Your task to perform on an android device: turn on sleep mode Image 0: 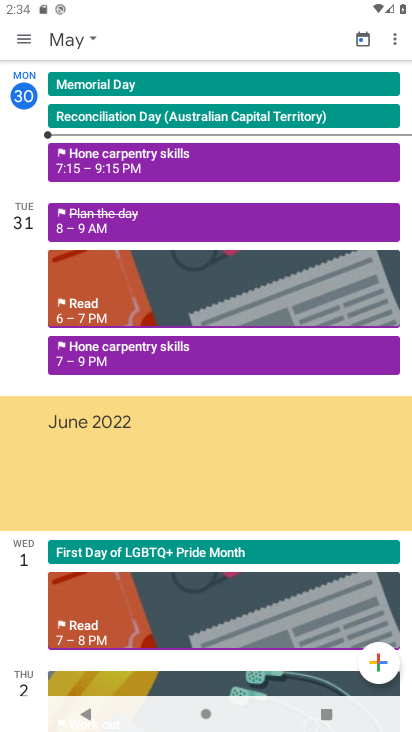
Step 0: press home button
Your task to perform on an android device: turn on sleep mode Image 1: 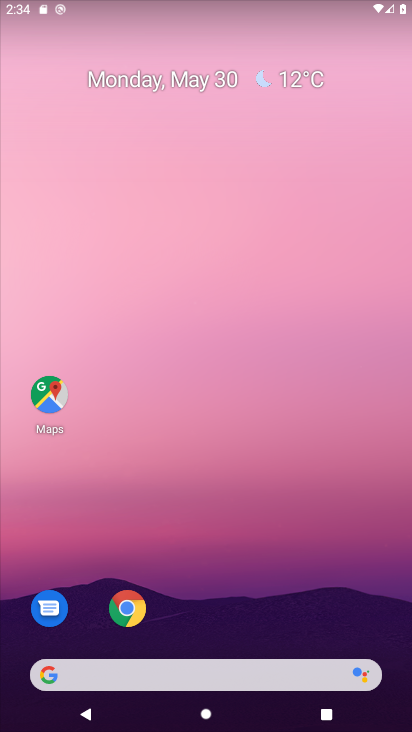
Step 1: drag from (260, 491) to (169, 0)
Your task to perform on an android device: turn on sleep mode Image 2: 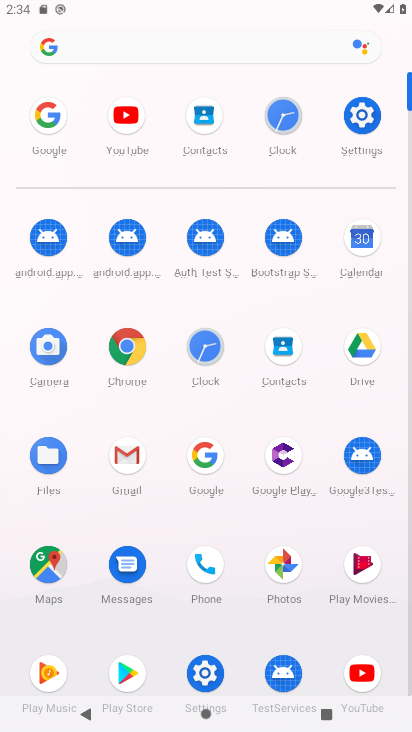
Step 2: click (363, 118)
Your task to perform on an android device: turn on sleep mode Image 3: 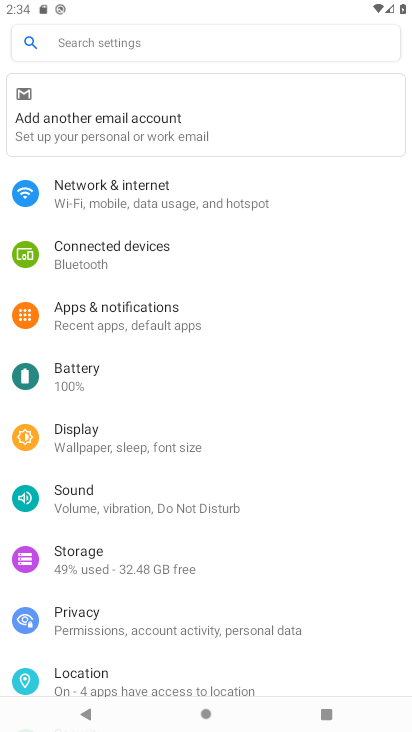
Step 3: click (157, 435)
Your task to perform on an android device: turn on sleep mode Image 4: 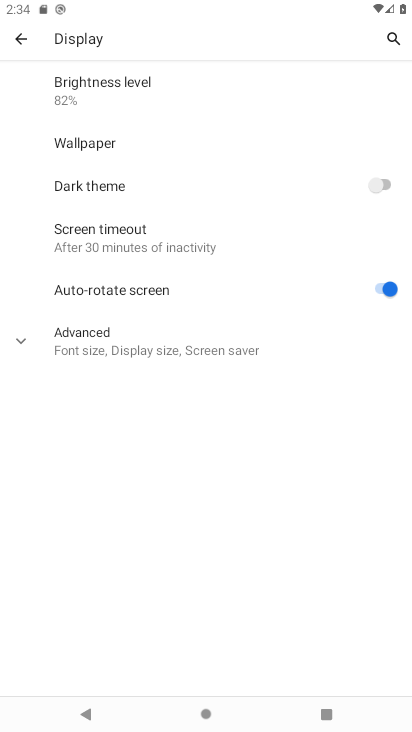
Step 4: task complete